Your task to perform on an android device: turn off picture-in-picture Image 0: 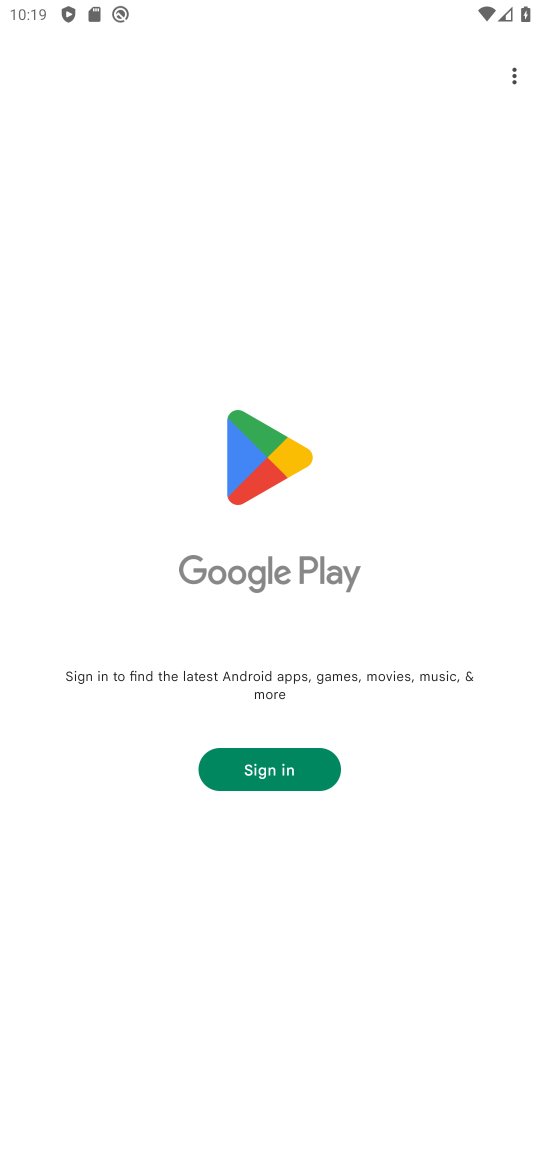
Step 0: press home button
Your task to perform on an android device: turn off picture-in-picture Image 1: 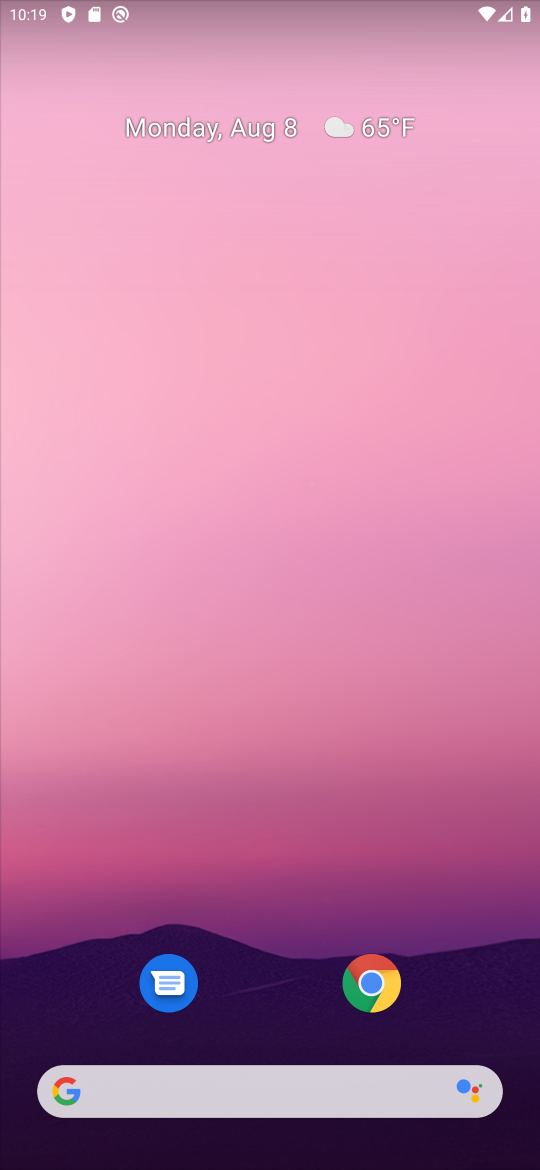
Step 1: drag from (255, 1002) to (249, 400)
Your task to perform on an android device: turn off picture-in-picture Image 2: 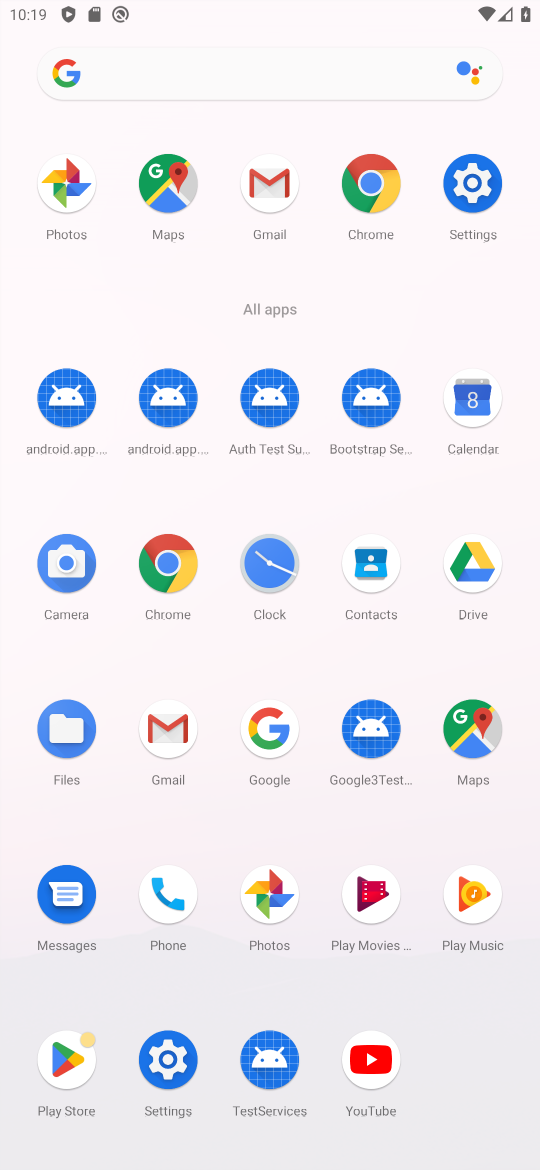
Step 2: click (483, 178)
Your task to perform on an android device: turn off picture-in-picture Image 3: 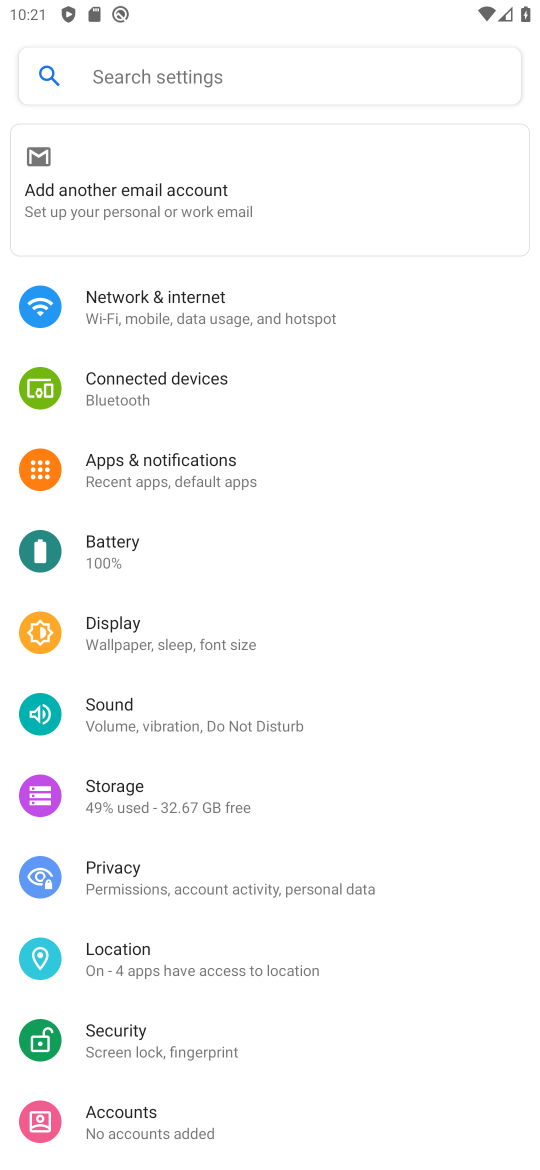
Step 3: task complete